Your task to perform on an android device: move a message to another label in the gmail app Image 0: 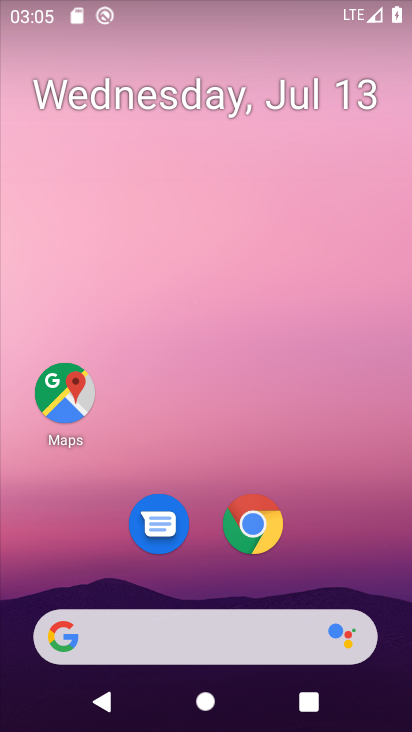
Step 0: drag from (321, 529) to (311, 65)
Your task to perform on an android device: move a message to another label in the gmail app Image 1: 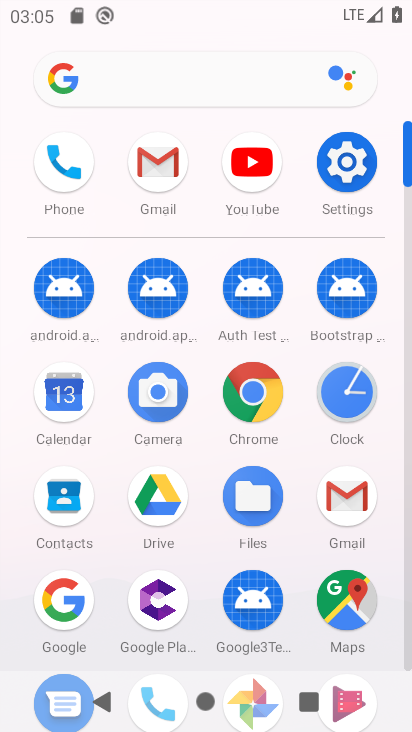
Step 1: click (169, 167)
Your task to perform on an android device: move a message to another label in the gmail app Image 2: 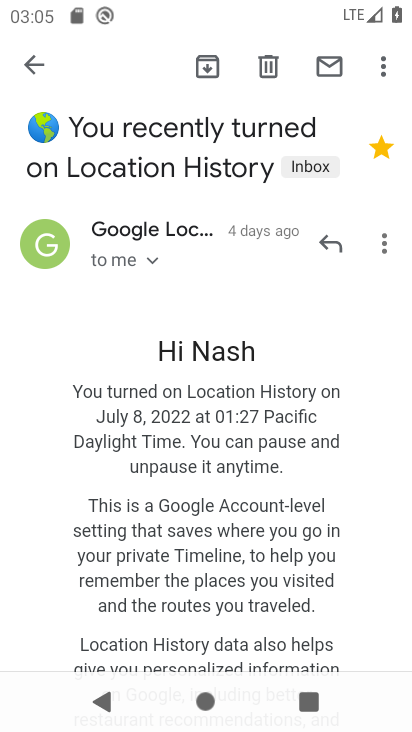
Step 2: click (379, 67)
Your task to perform on an android device: move a message to another label in the gmail app Image 3: 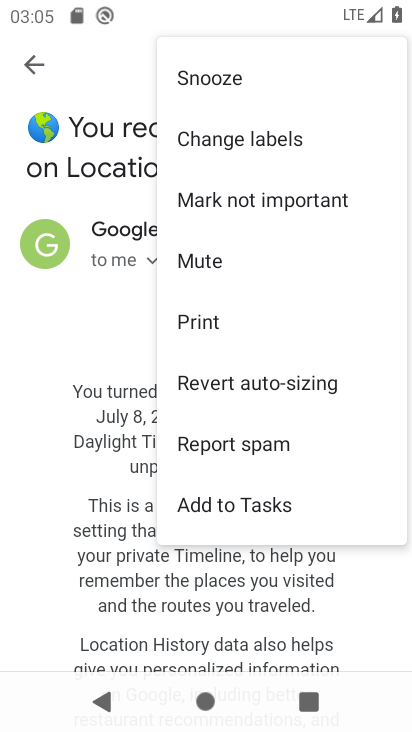
Step 3: click (294, 134)
Your task to perform on an android device: move a message to another label in the gmail app Image 4: 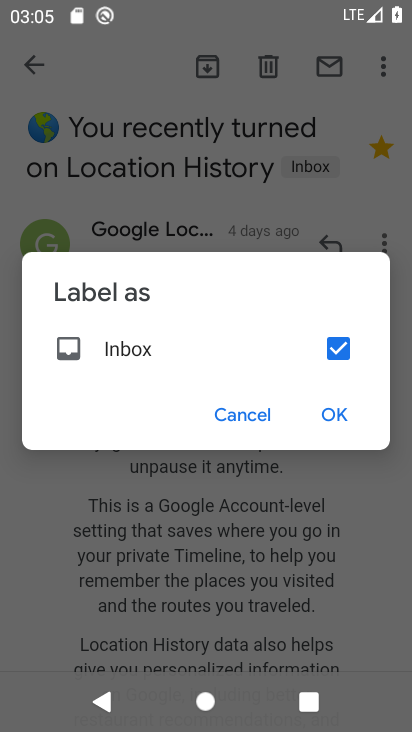
Step 4: click (333, 341)
Your task to perform on an android device: move a message to another label in the gmail app Image 5: 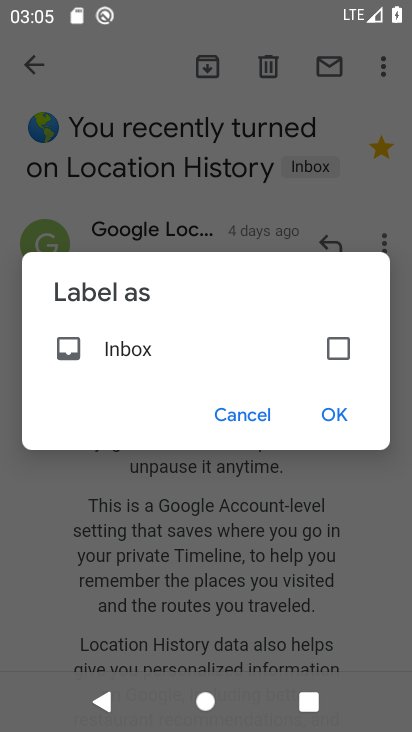
Step 5: click (335, 410)
Your task to perform on an android device: move a message to another label in the gmail app Image 6: 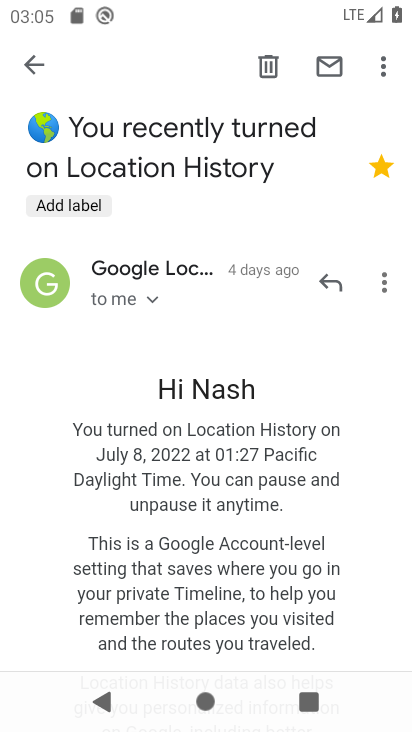
Step 6: task complete